Your task to perform on an android device: see tabs open on other devices in the chrome app Image 0: 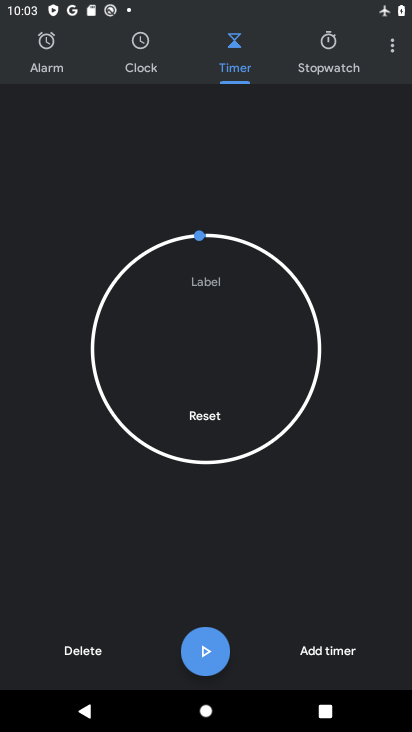
Step 0: press home button
Your task to perform on an android device: see tabs open on other devices in the chrome app Image 1: 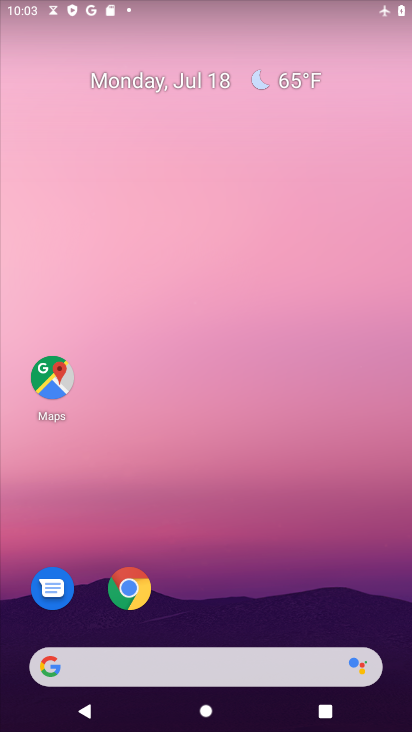
Step 1: click (126, 587)
Your task to perform on an android device: see tabs open on other devices in the chrome app Image 2: 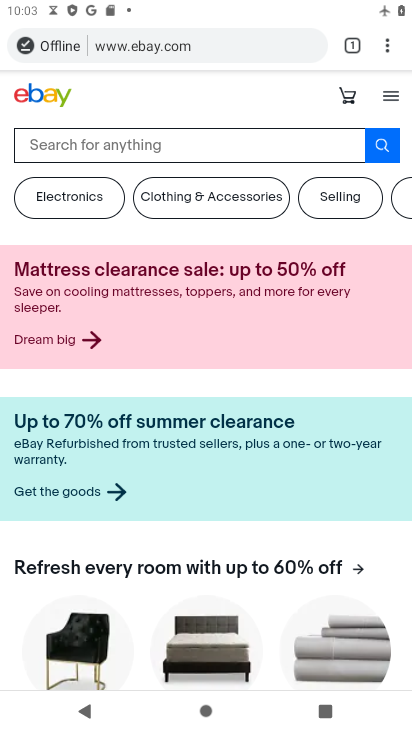
Step 2: click (388, 46)
Your task to perform on an android device: see tabs open on other devices in the chrome app Image 3: 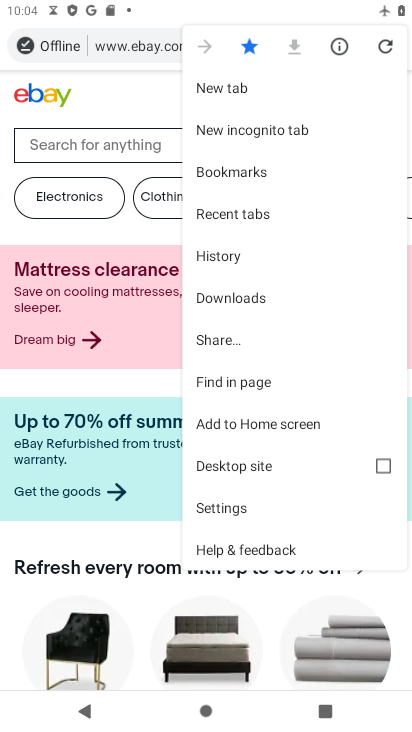
Step 3: click (259, 215)
Your task to perform on an android device: see tabs open on other devices in the chrome app Image 4: 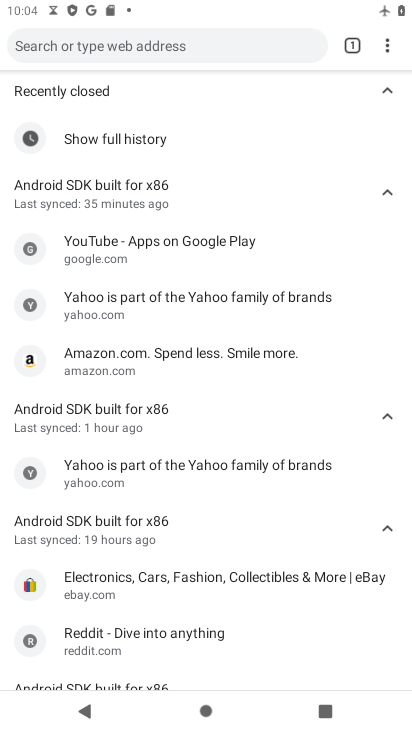
Step 4: task complete